Your task to perform on an android device: toggle translation in the chrome app Image 0: 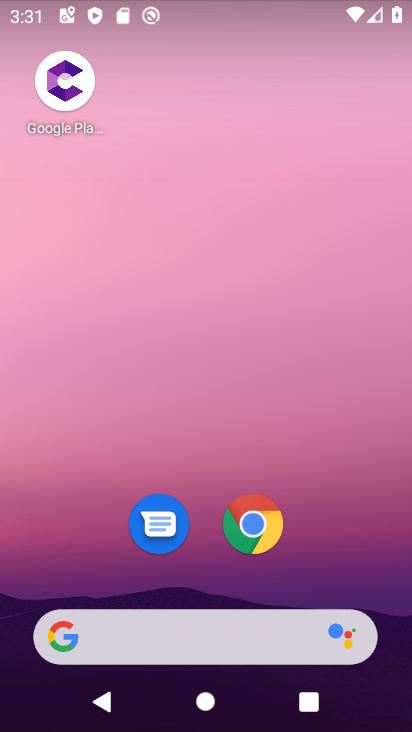
Step 0: click (267, 535)
Your task to perform on an android device: toggle translation in the chrome app Image 1: 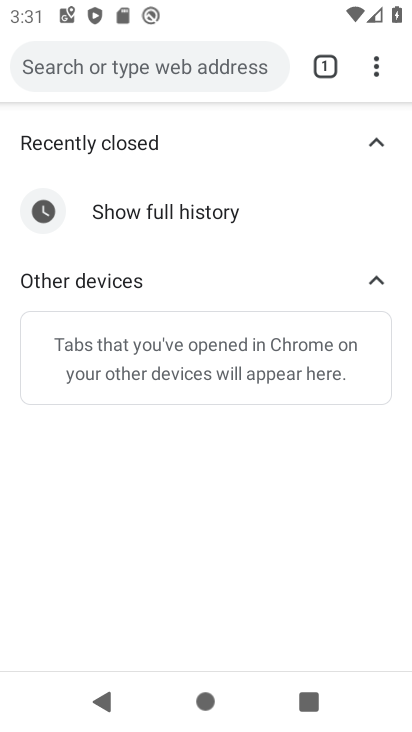
Step 1: click (377, 74)
Your task to perform on an android device: toggle translation in the chrome app Image 2: 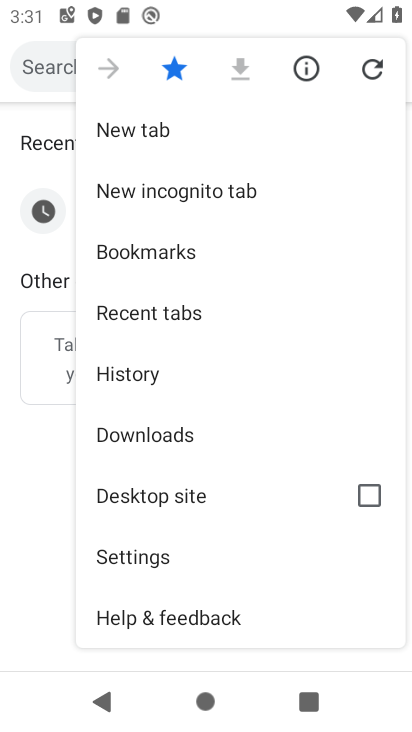
Step 2: click (159, 559)
Your task to perform on an android device: toggle translation in the chrome app Image 3: 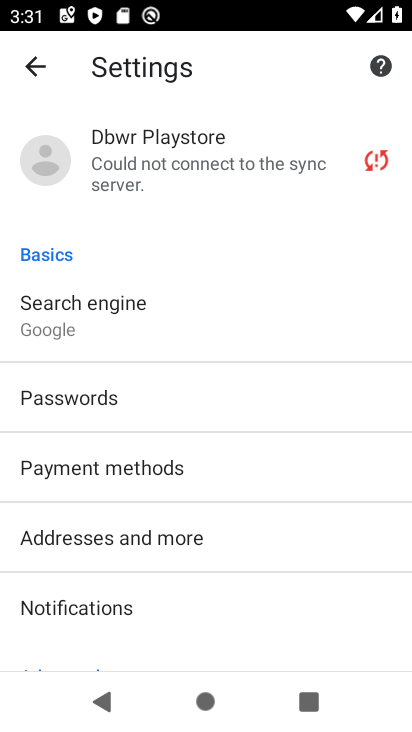
Step 3: drag from (159, 557) to (174, 335)
Your task to perform on an android device: toggle translation in the chrome app Image 4: 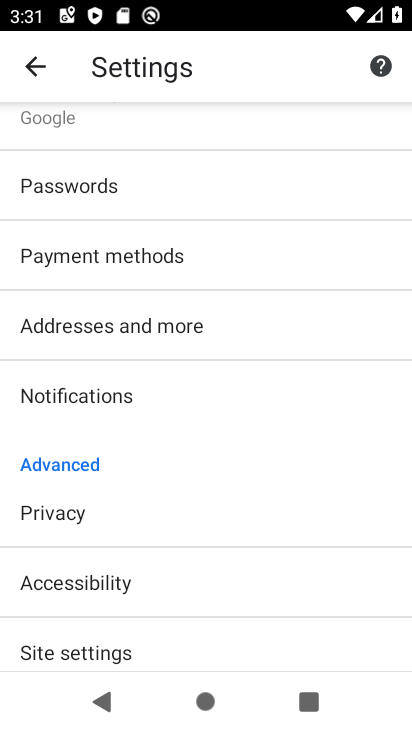
Step 4: drag from (201, 326) to (210, 129)
Your task to perform on an android device: toggle translation in the chrome app Image 5: 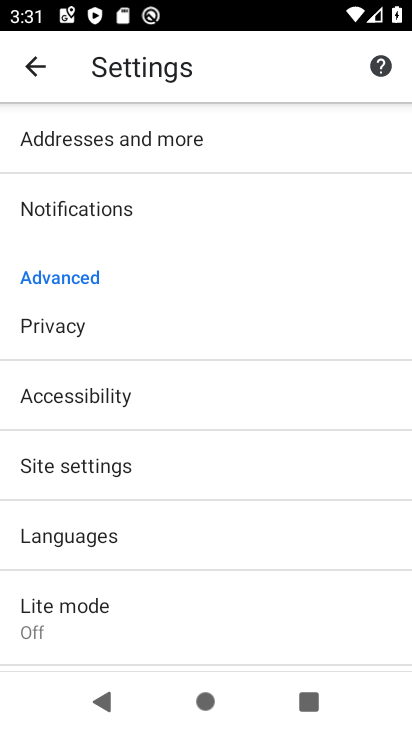
Step 5: click (323, 539)
Your task to perform on an android device: toggle translation in the chrome app Image 6: 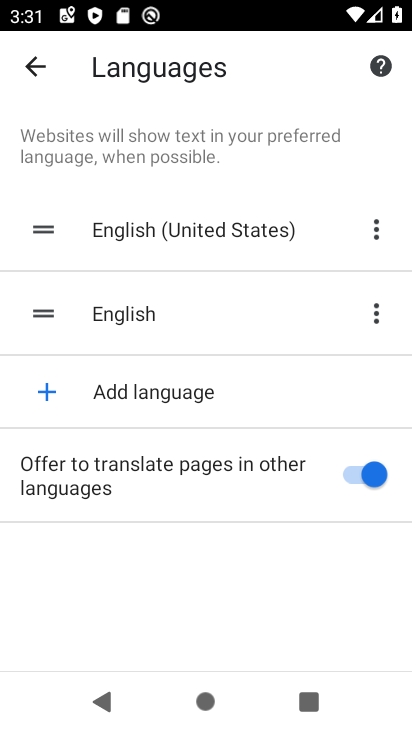
Step 6: click (358, 465)
Your task to perform on an android device: toggle translation in the chrome app Image 7: 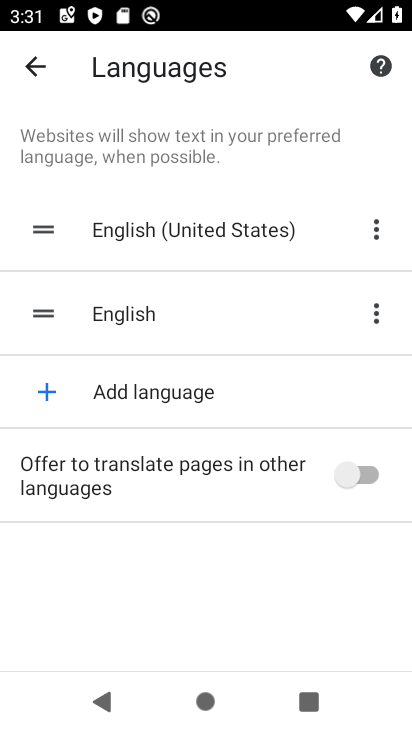
Step 7: task complete